Your task to perform on an android device: turn off data saver in the chrome app Image 0: 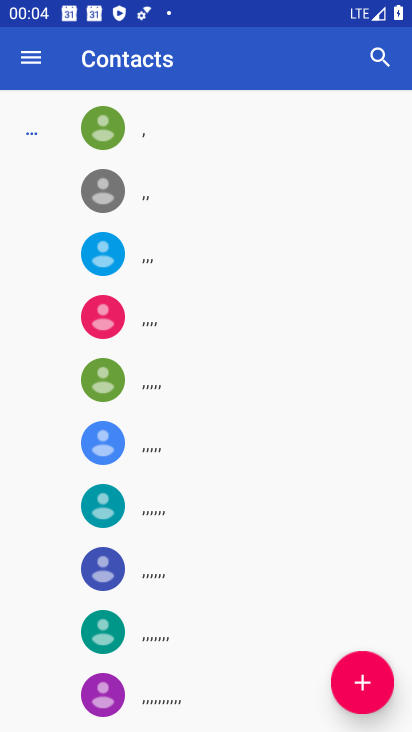
Step 0: press home button
Your task to perform on an android device: turn off data saver in the chrome app Image 1: 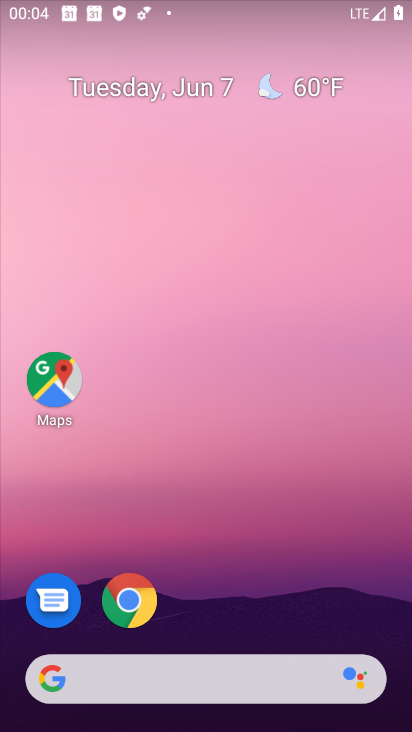
Step 1: click (131, 608)
Your task to perform on an android device: turn off data saver in the chrome app Image 2: 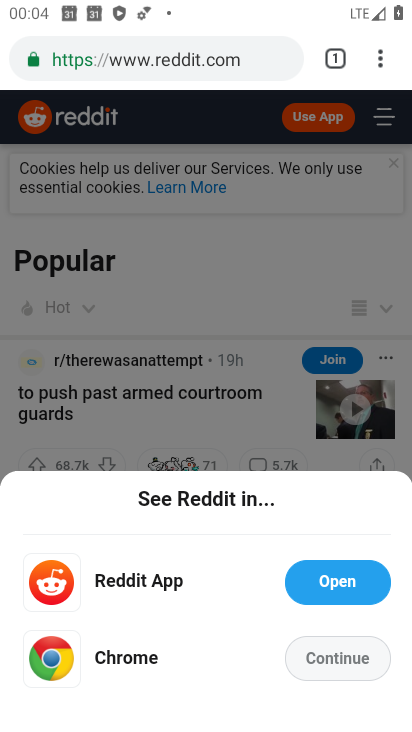
Step 2: click (382, 67)
Your task to perform on an android device: turn off data saver in the chrome app Image 3: 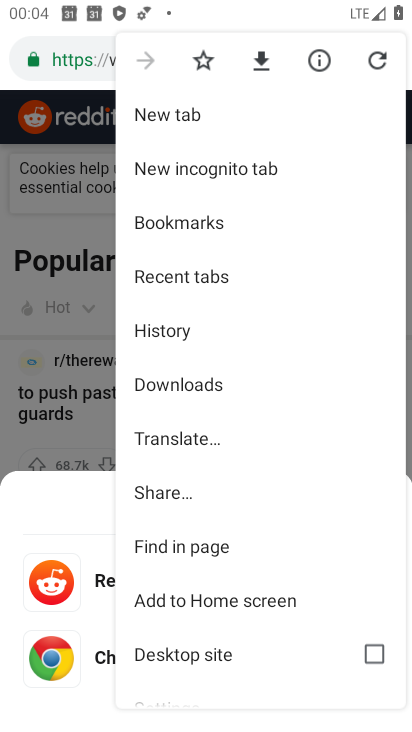
Step 3: drag from (181, 669) to (181, 339)
Your task to perform on an android device: turn off data saver in the chrome app Image 4: 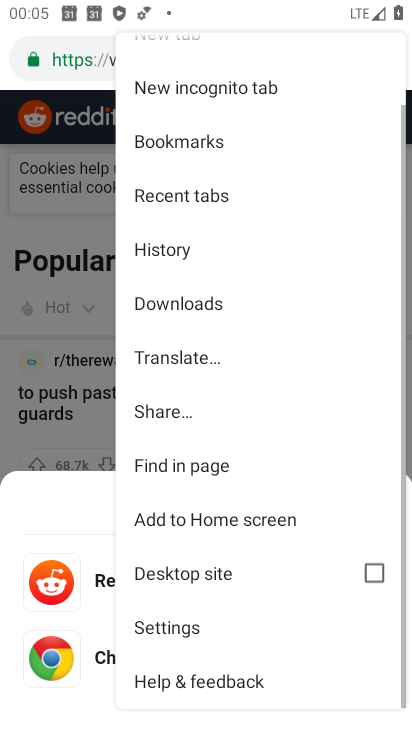
Step 4: click (172, 626)
Your task to perform on an android device: turn off data saver in the chrome app Image 5: 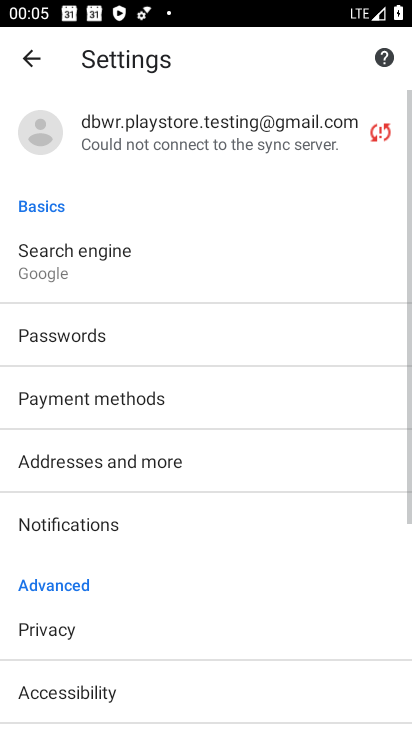
Step 5: drag from (113, 688) to (113, 350)
Your task to perform on an android device: turn off data saver in the chrome app Image 6: 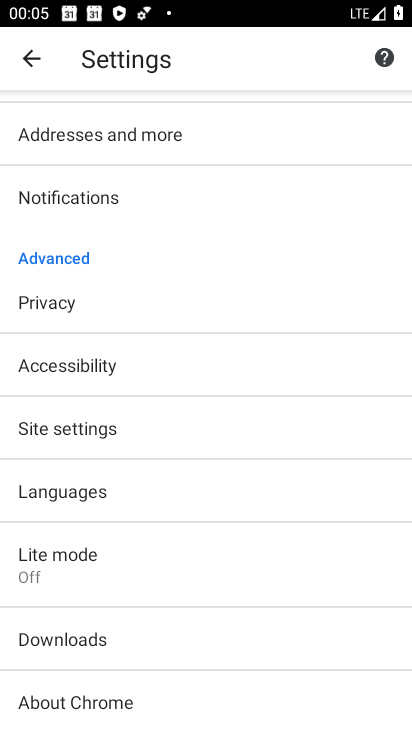
Step 6: click (71, 552)
Your task to perform on an android device: turn off data saver in the chrome app Image 7: 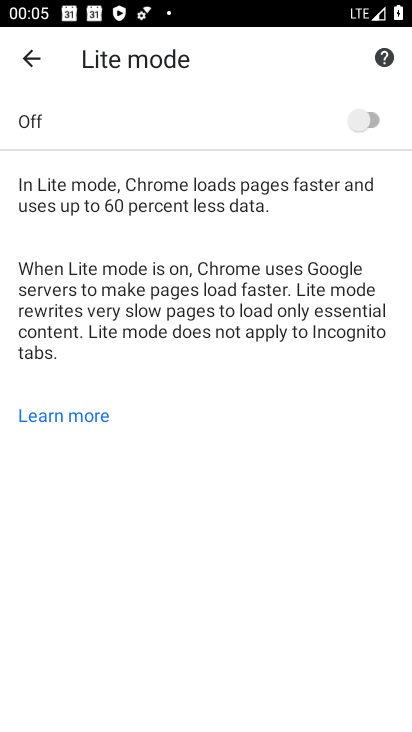
Step 7: task complete